Your task to perform on an android device: toggle data saver in the chrome app Image 0: 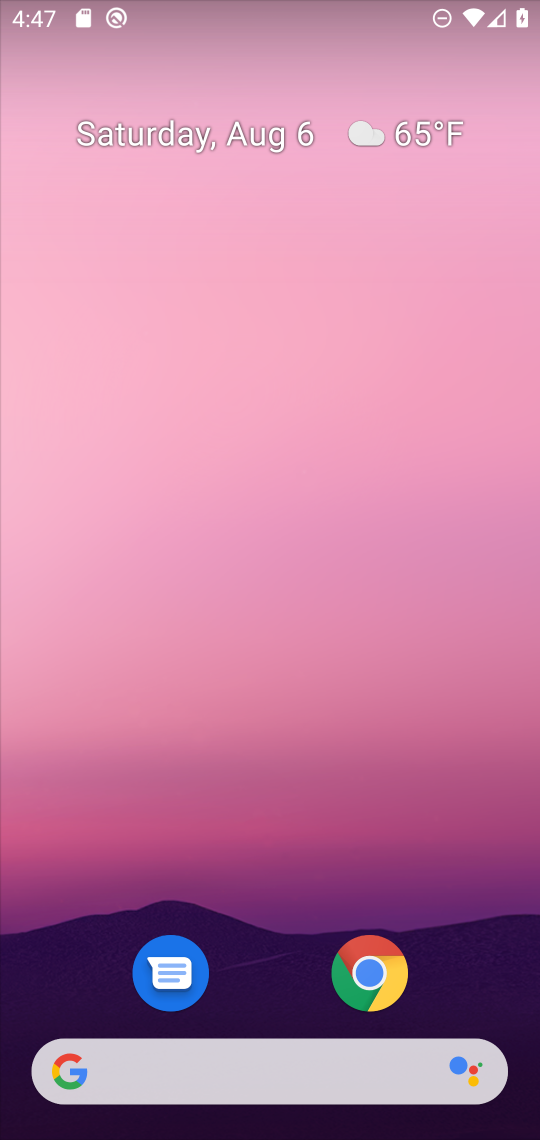
Step 0: drag from (273, 961) to (301, 6)
Your task to perform on an android device: toggle data saver in the chrome app Image 1: 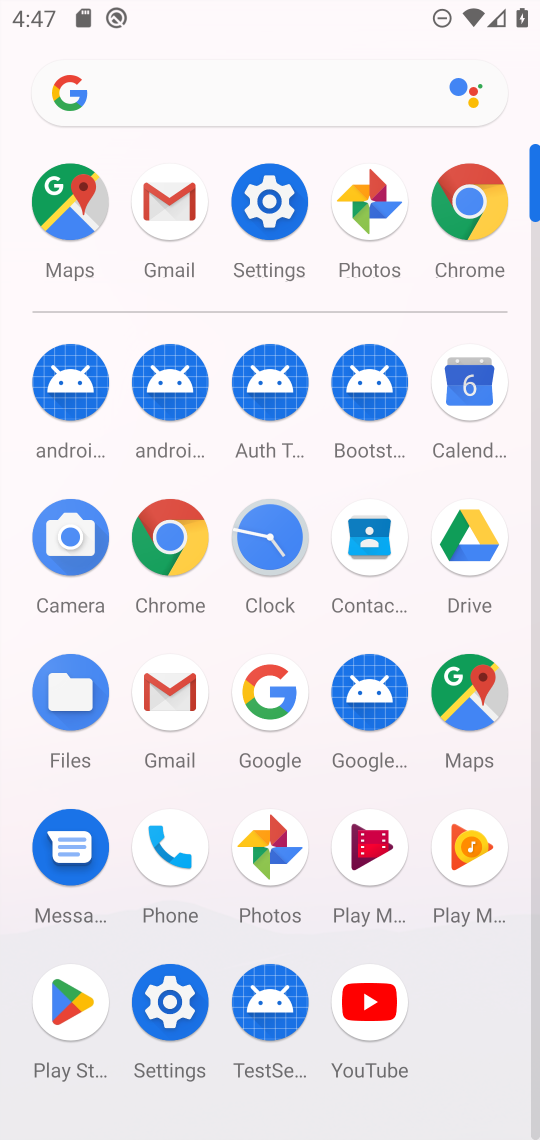
Step 1: click (172, 541)
Your task to perform on an android device: toggle data saver in the chrome app Image 2: 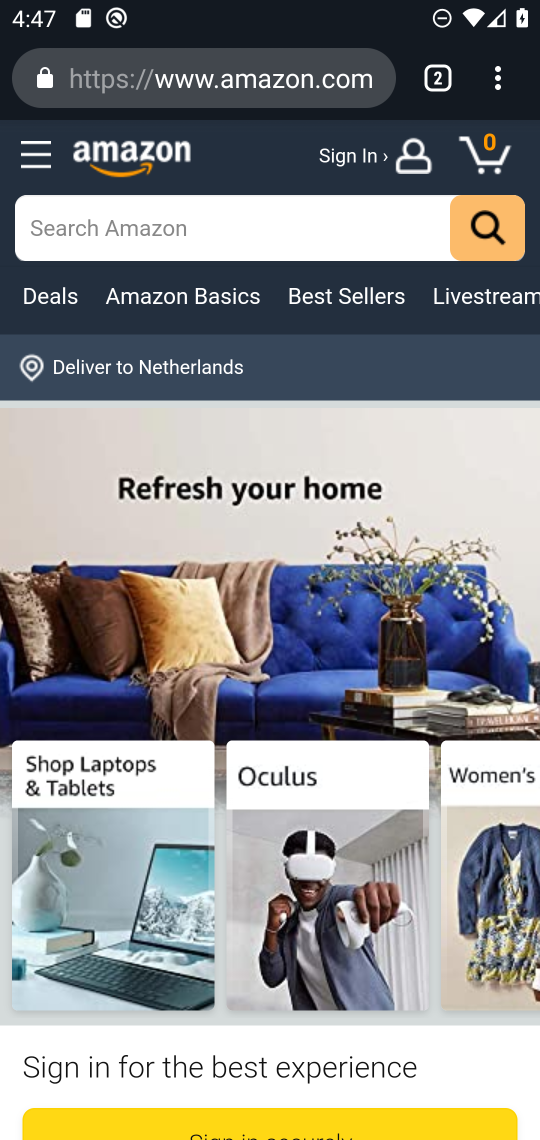
Step 2: drag from (500, 75) to (252, 920)
Your task to perform on an android device: toggle data saver in the chrome app Image 3: 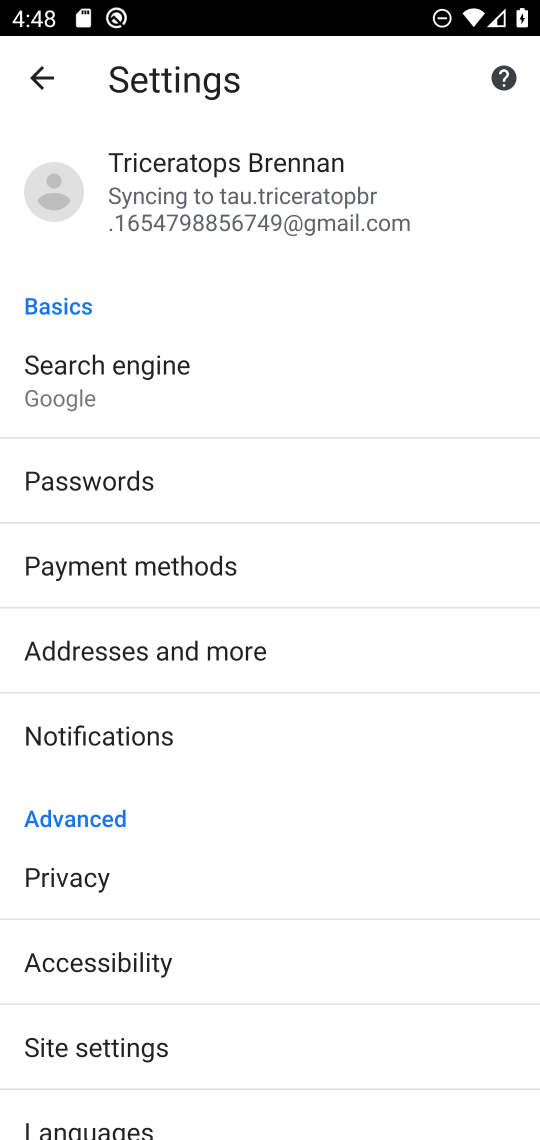
Step 3: drag from (256, 788) to (294, 101)
Your task to perform on an android device: toggle data saver in the chrome app Image 4: 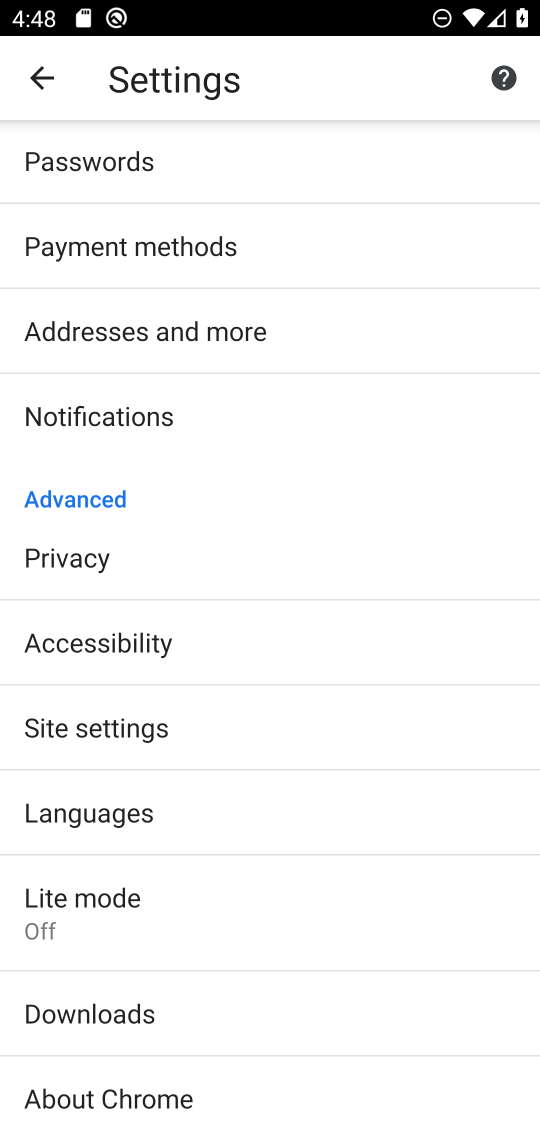
Step 4: click (68, 936)
Your task to perform on an android device: toggle data saver in the chrome app Image 5: 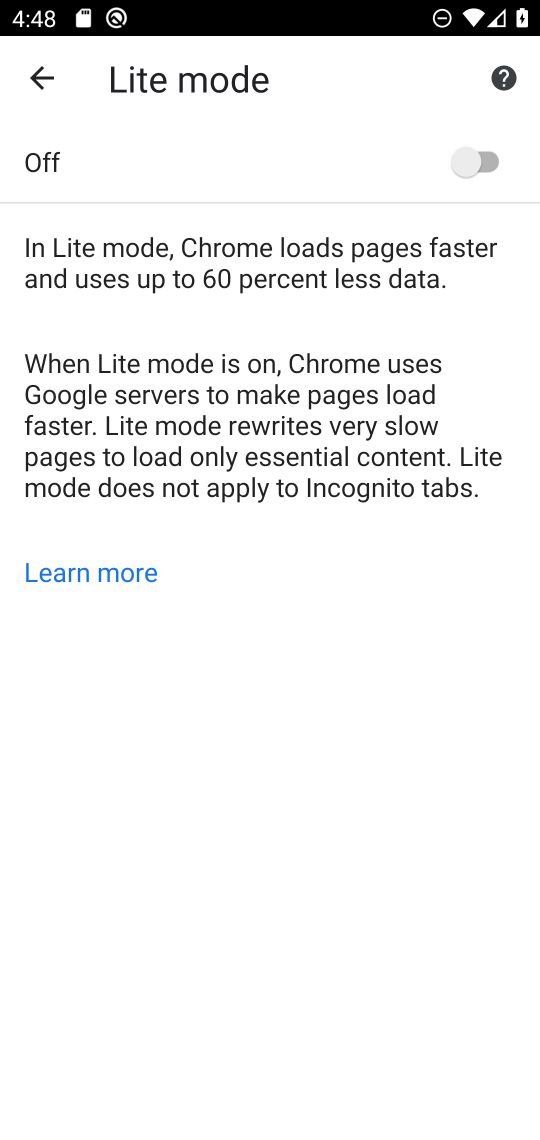
Step 5: click (419, 172)
Your task to perform on an android device: toggle data saver in the chrome app Image 6: 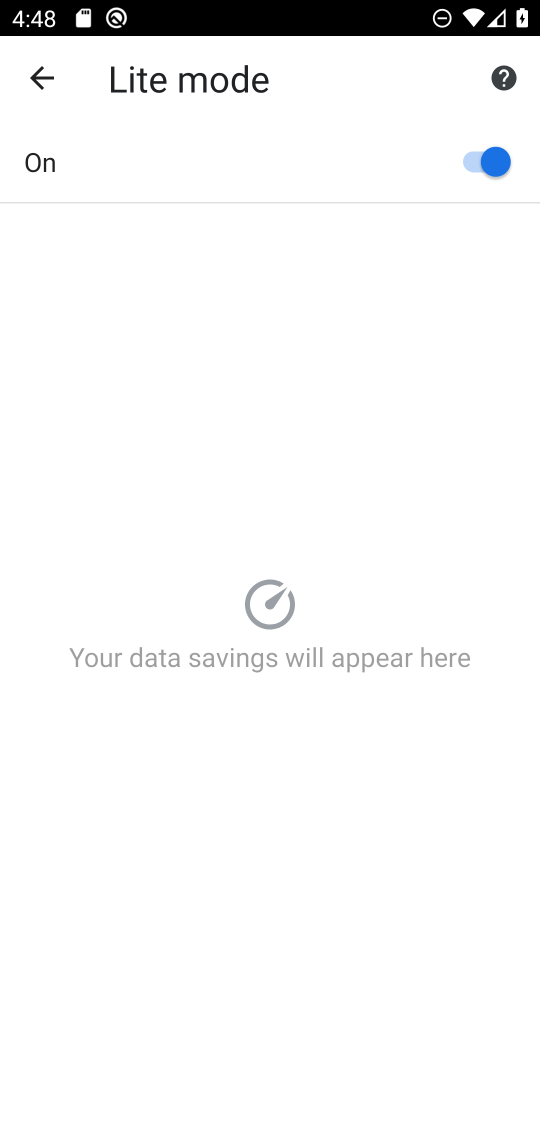
Step 6: task complete